Your task to perform on an android device: Search for vegetarian restaurants on Maps Image 0: 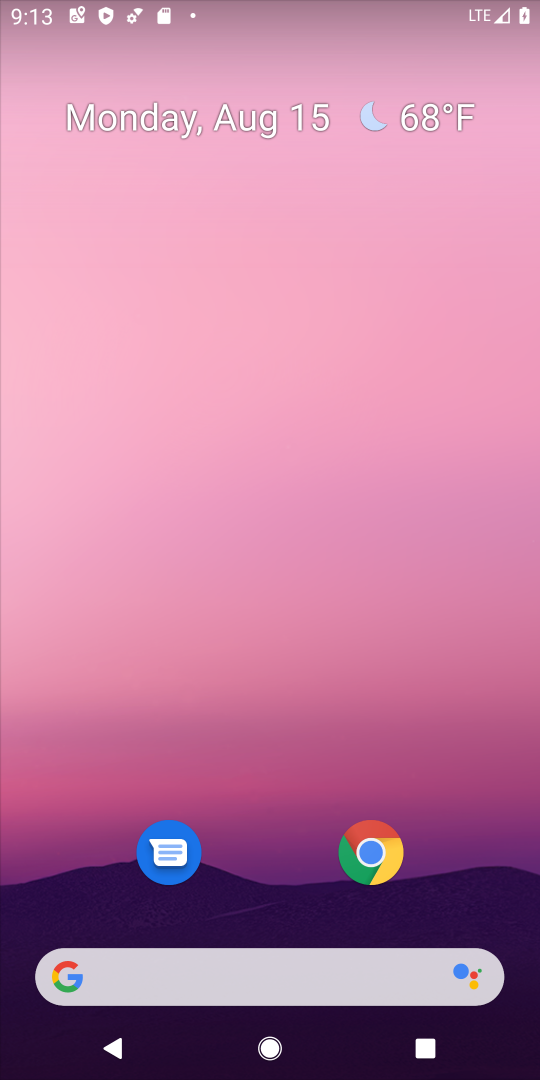
Step 0: drag from (231, 993) to (395, 216)
Your task to perform on an android device: Search for vegetarian restaurants on Maps Image 1: 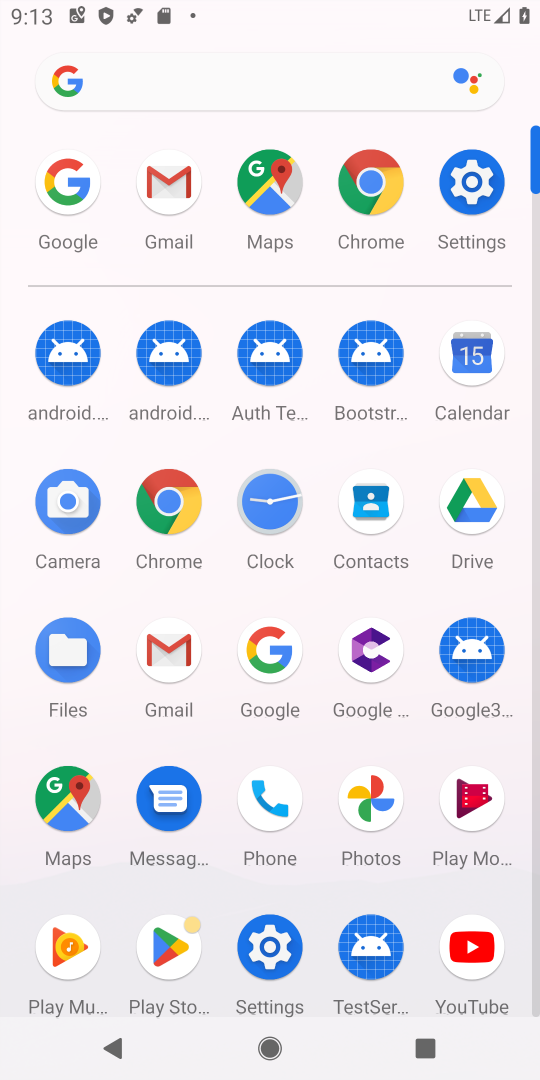
Step 1: click (268, 188)
Your task to perform on an android device: Search for vegetarian restaurants on Maps Image 2: 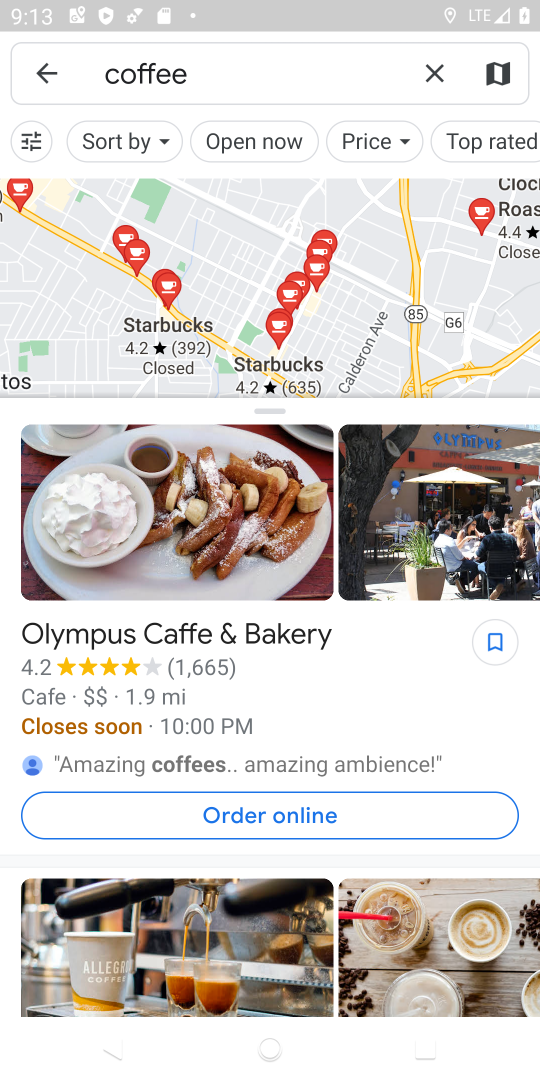
Step 2: click (433, 71)
Your task to perform on an android device: Search for vegetarian restaurants on Maps Image 3: 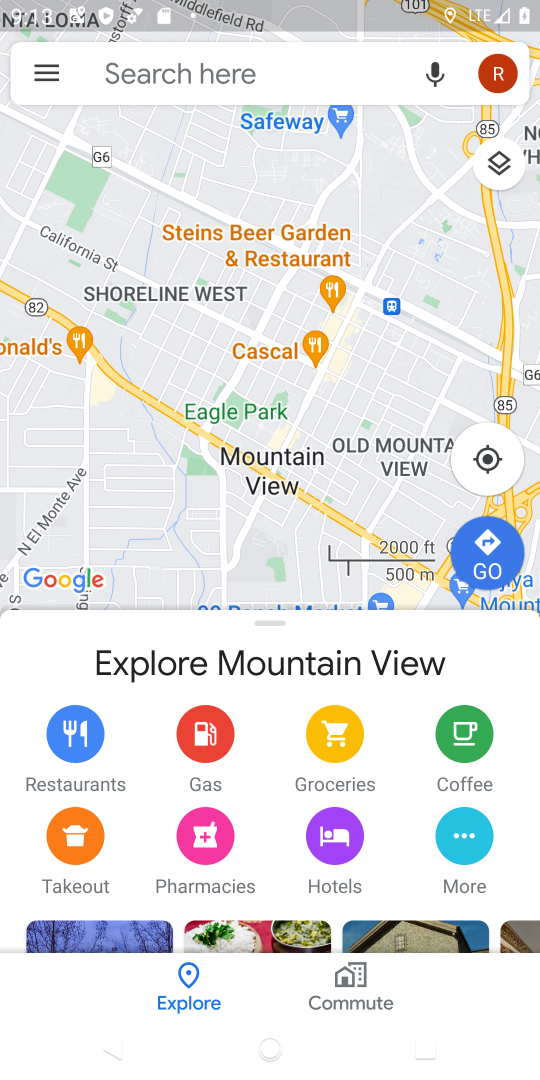
Step 3: click (197, 75)
Your task to perform on an android device: Search for vegetarian restaurants on Maps Image 4: 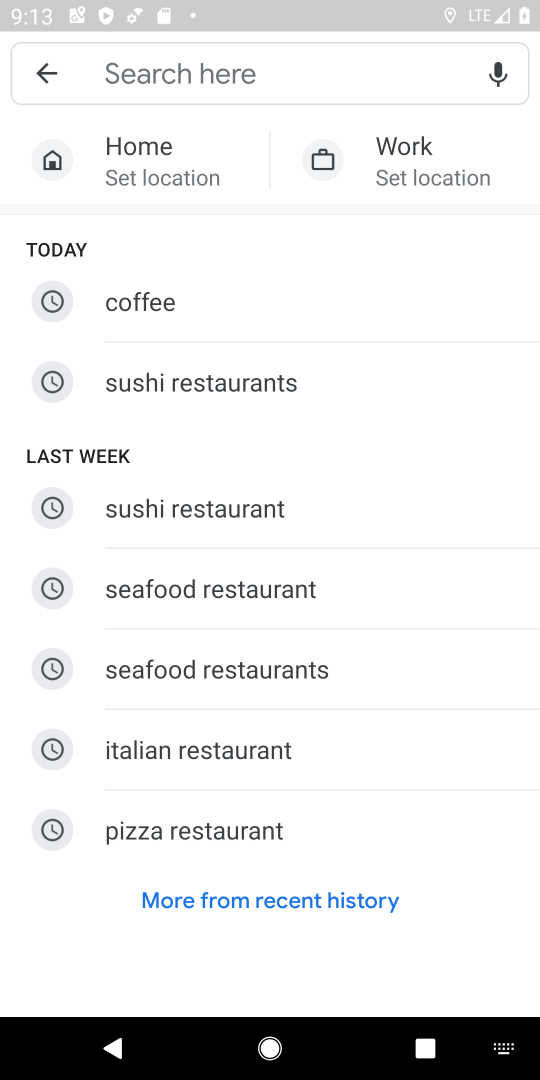
Step 4: type "vegetarian restaurants"
Your task to perform on an android device: Search for vegetarian restaurants on Maps Image 5: 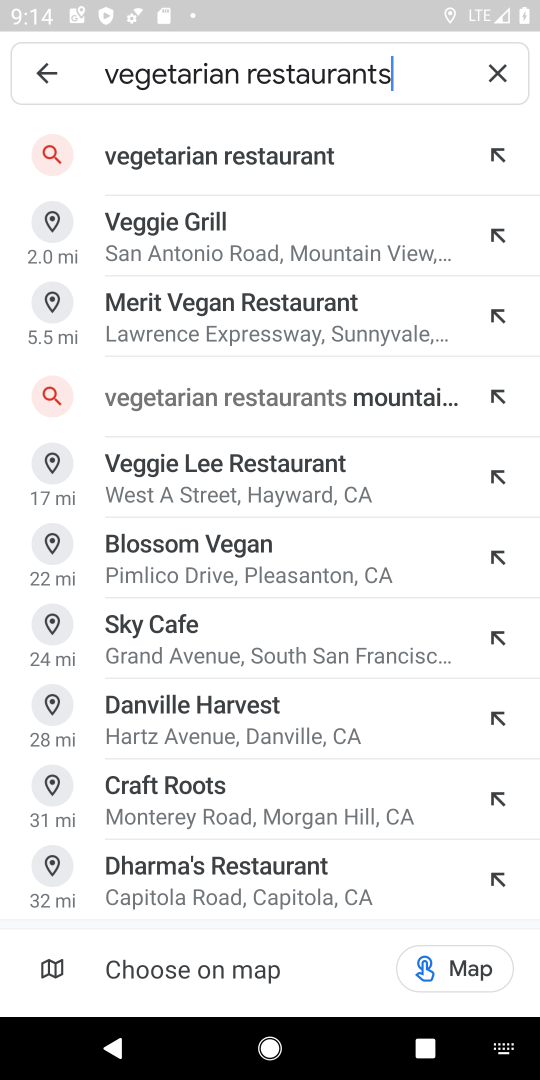
Step 5: click (275, 154)
Your task to perform on an android device: Search for vegetarian restaurants on Maps Image 6: 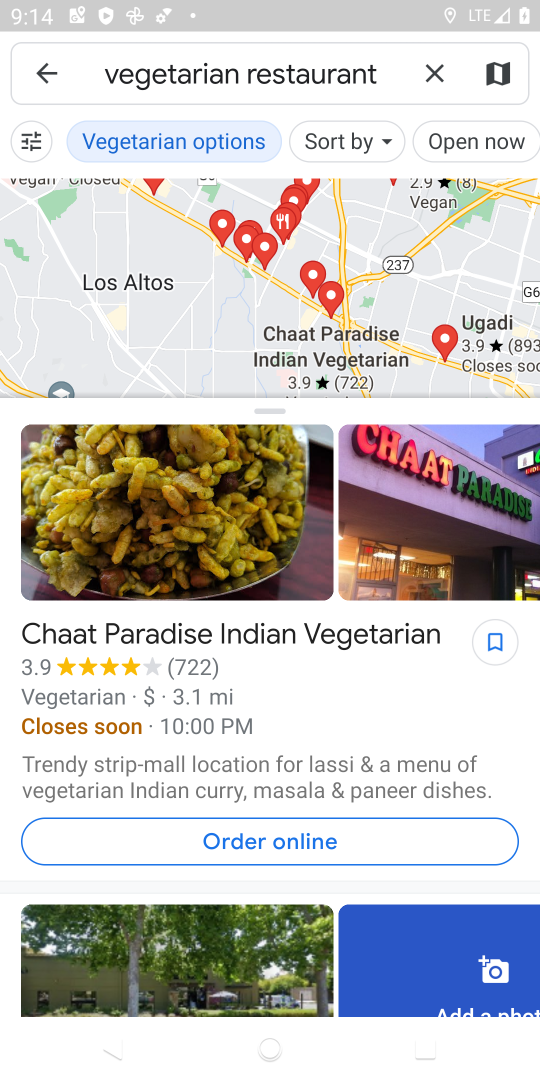
Step 6: task complete